Your task to perform on an android device: Open Google Image 0: 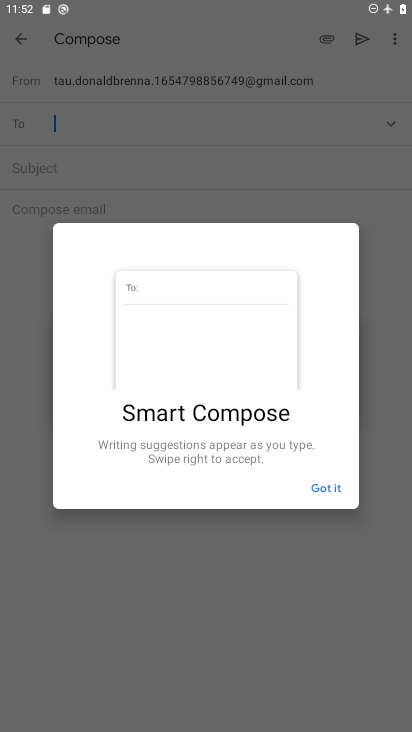
Step 0: press home button
Your task to perform on an android device: Open Google Image 1: 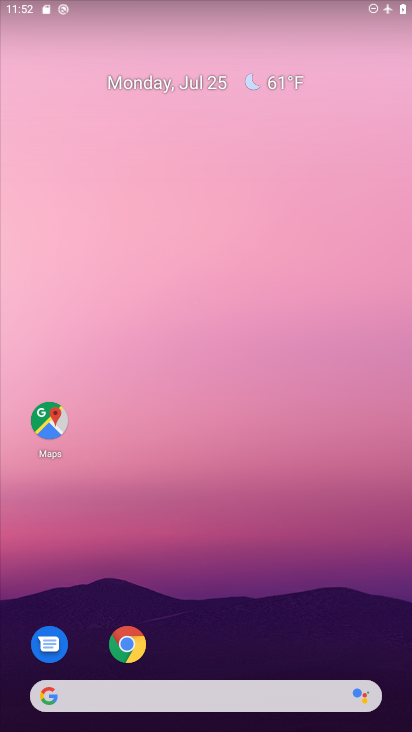
Step 1: drag from (206, 634) to (189, 194)
Your task to perform on an android device: Open Google Image 2: 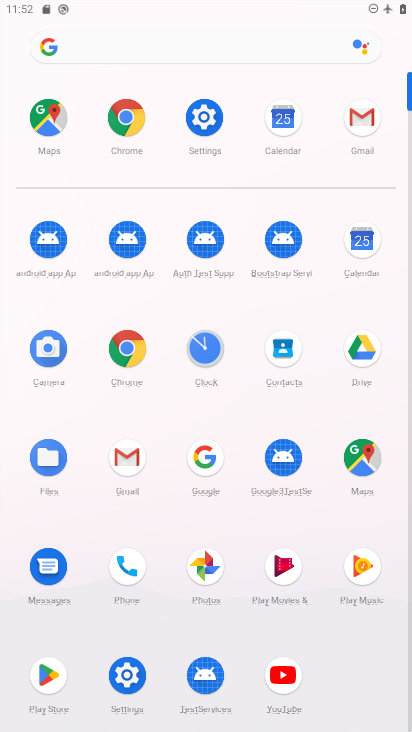
Step 2: click (214, 464)
Your task to perform on an android device: Open Google Image 3: 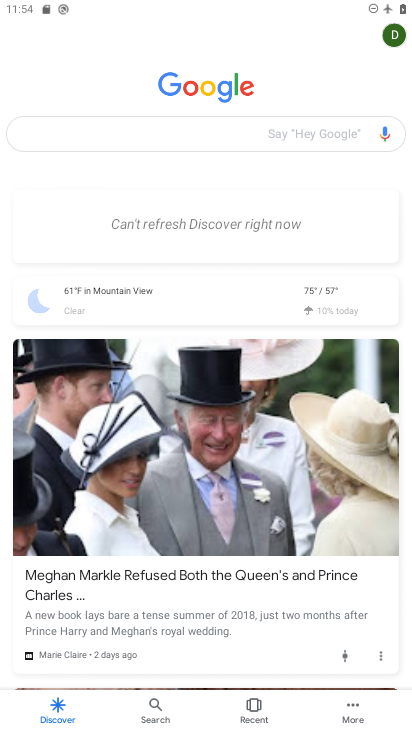
Step 3: task complete